Your task to perform on an android device: clear history in the chrome app Image 0: 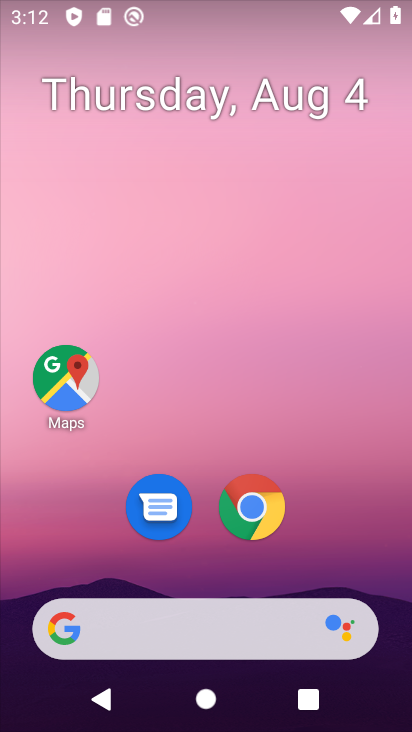
Step 0: click (234, 524)
Your task to perform on an android device: clear history in the chrome app Image 1: 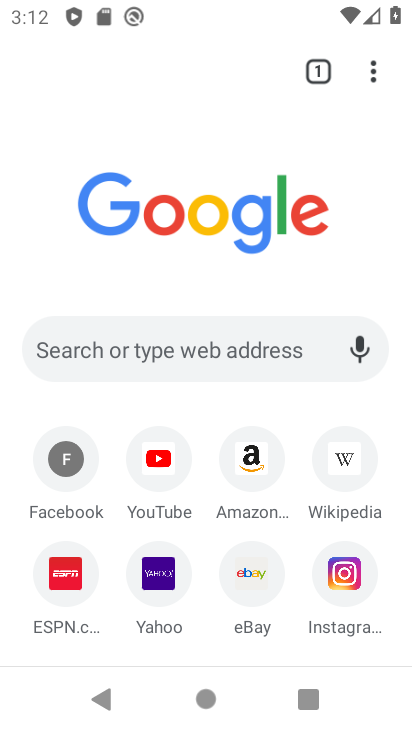
Step 1: click (384, 63)
Your task to perform on an android device: clear history in the chrome app Image 2: 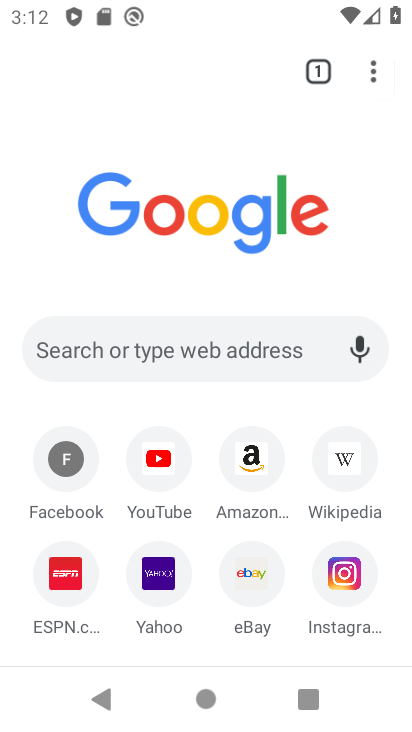
Step 2: click (364, 62)
Your task to perform on an android device: clear history in the chrome app Image 3: 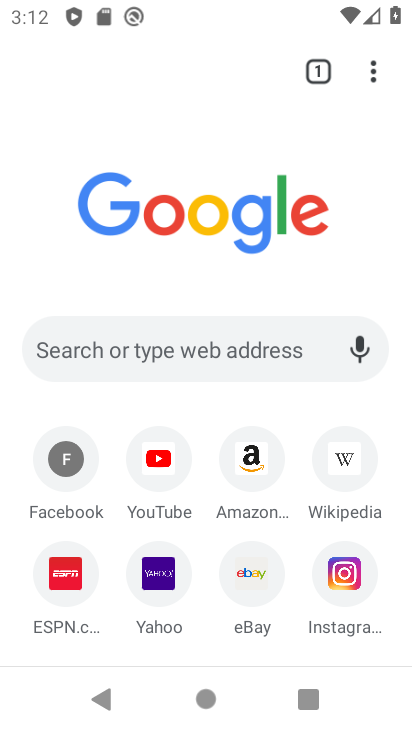
Step 3: click (372, 70)
Your task to perform on an android device: clear history in the chrome app Image 4: 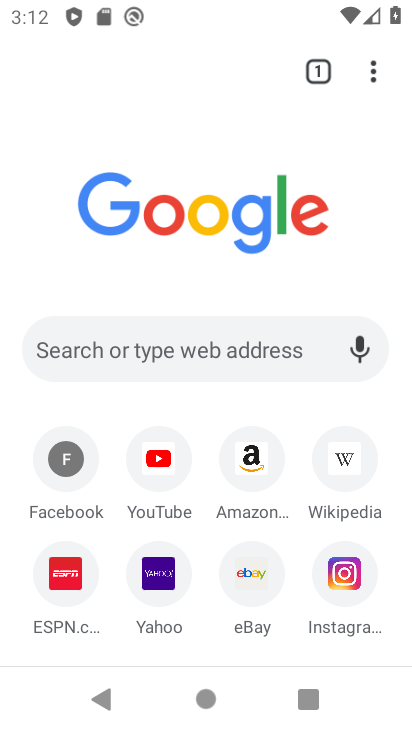
Step 4: click (372, 70)
Your task to perform on an android device: clear history in the chrome app Image 5: 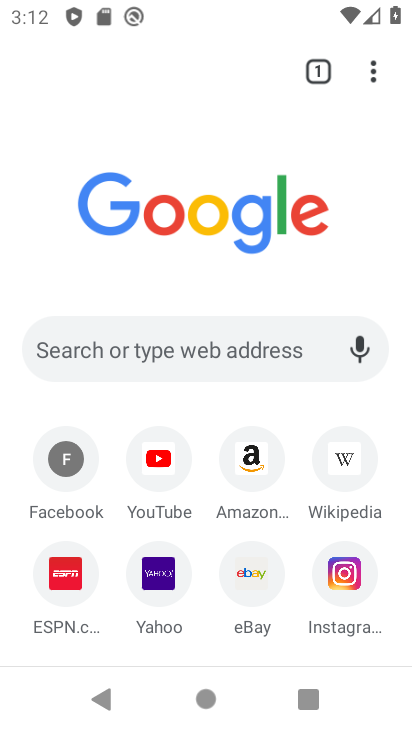
Step 5: task complete